Your task to perform on an android device: Open the map Image 0: 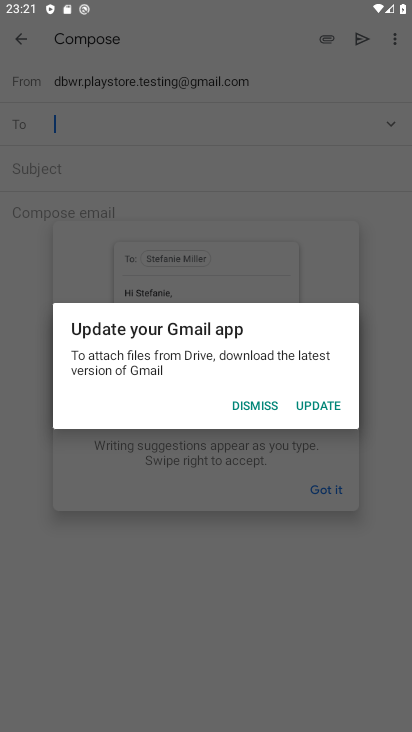
Step 0: press home button
Your task to perform on an android device: Open the map Image 1: 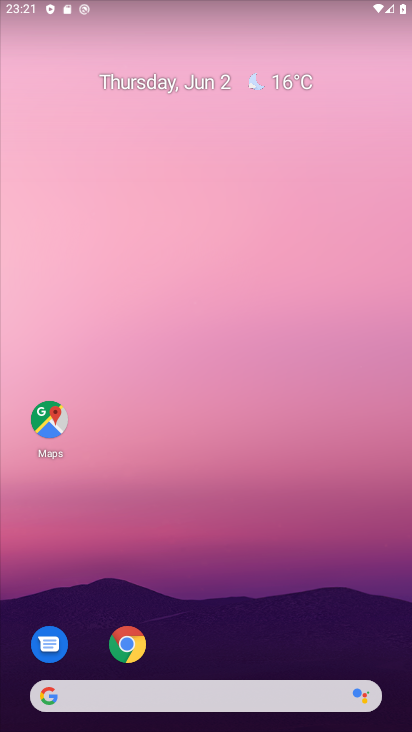
Step 1: drag from (114, 573) to (168, 146)
Your task to perform on an android device: Open the map Image 2: 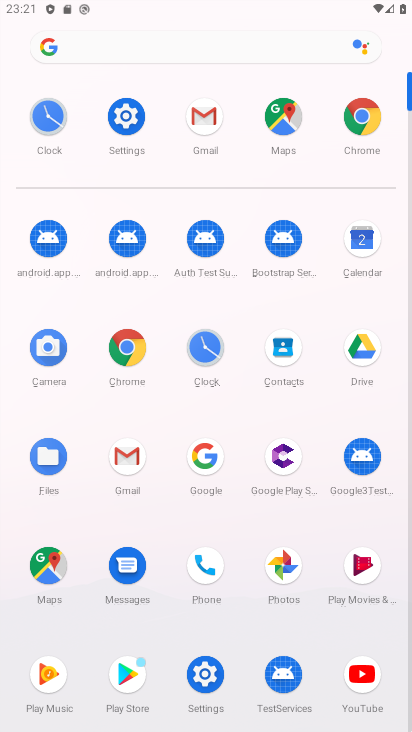
Step 2: click (45, 562)
Your task to perform on an android device: Open the map Image 3: 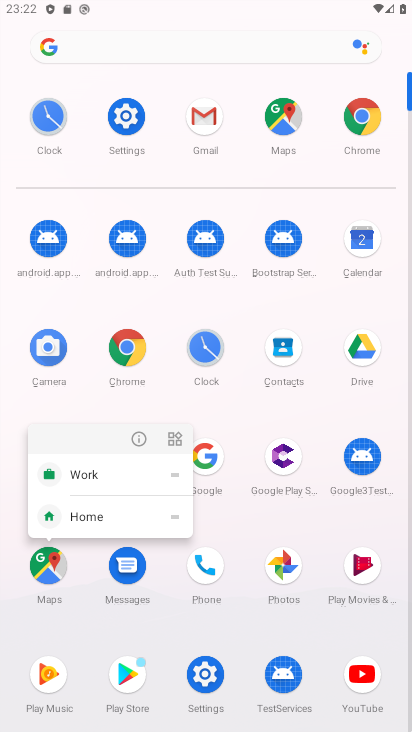
Step 3: click (137, 438)
Your task to perform on an android device: Open the map Image 4: 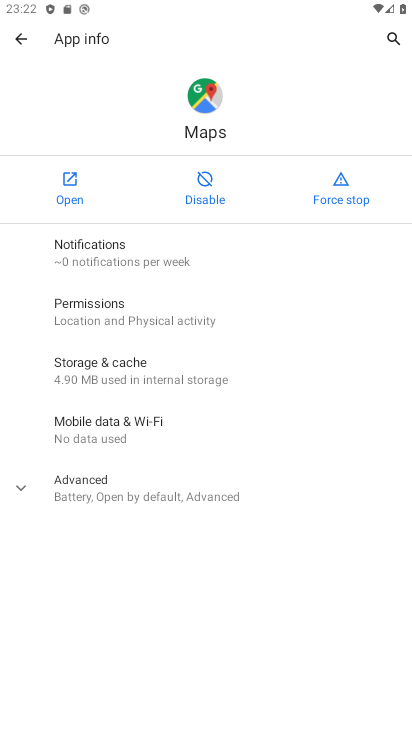
Step 4: click (84, 191)
Your task to perform on an android device: Open the map Image 5: 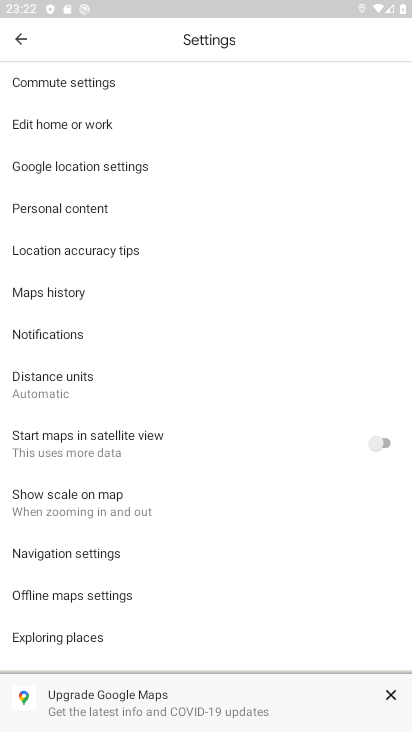
Step 5: press home button
Your task to perform on an android device: Open the map Image 6: 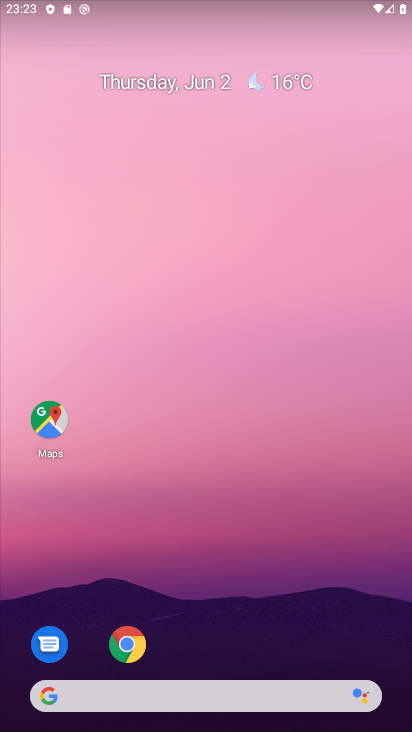
Step 6: drag from (181, 588) to (246, 164)
Your task to perform on an android device: Open the map Image 7: 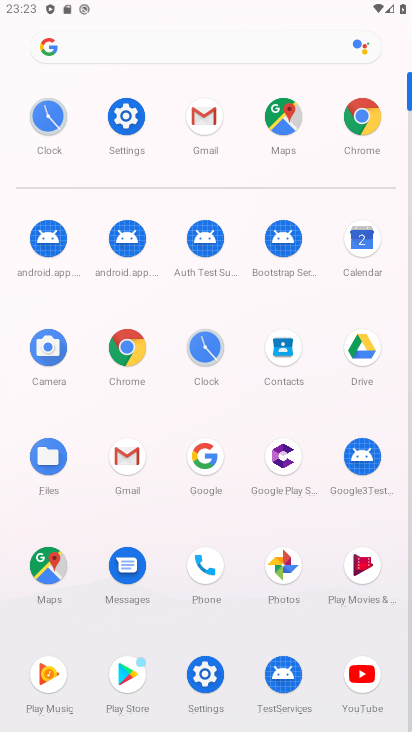
Step 7: click (282, 113)
Your task to perform on an android device: Open the map Image 8: 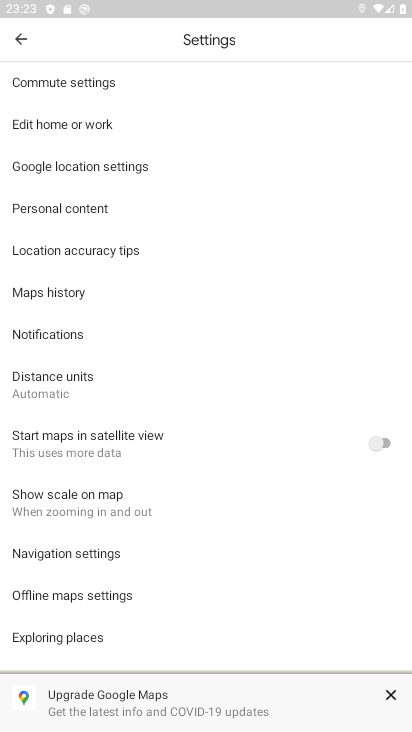
Step 8: click (30, 28)
Your task to perform on an android device: Open the map Image 9: 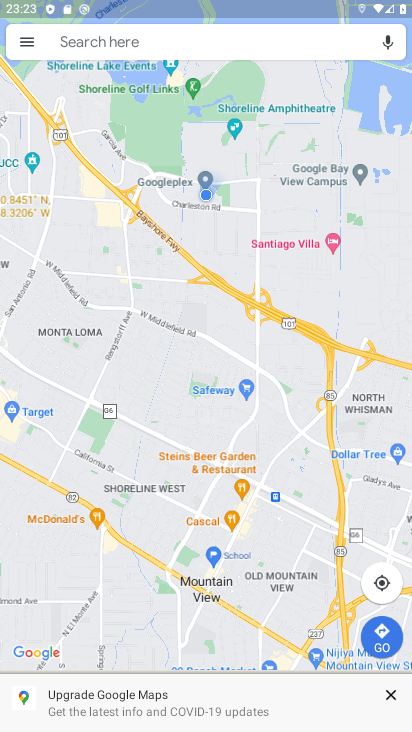
Step 9: task complete